Your task to perform on an android device: Go to Google Image 0: 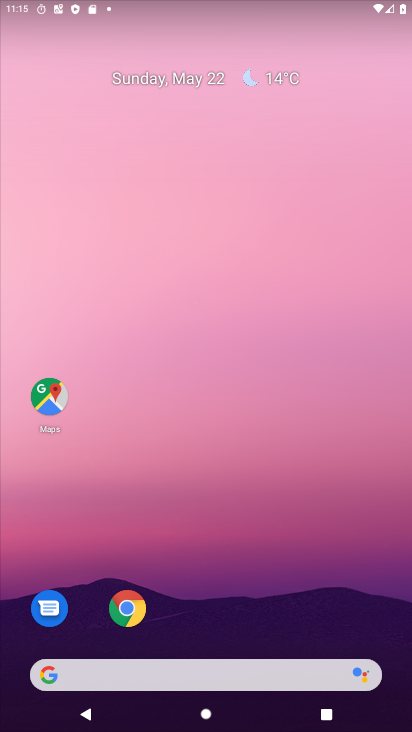
Step 0: drag from (219, 723) to (210, 39)
Your task to perform on an android device: Go to Google Image 1: 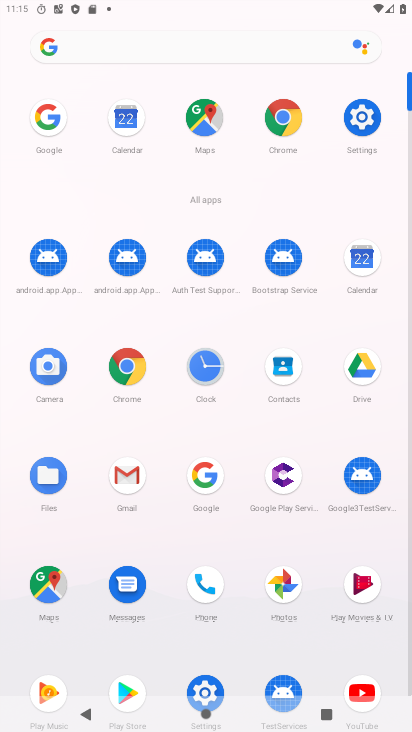
Step 1: click (202, 472)
Your task to perform on an android device: Go to Google Image 2: 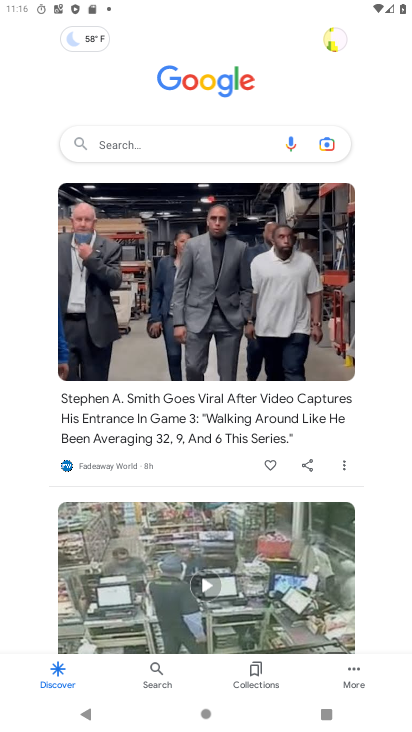
Step 2: task complete